Your task to perform on an android device: find snoozed emails in the gmail app Image 0: 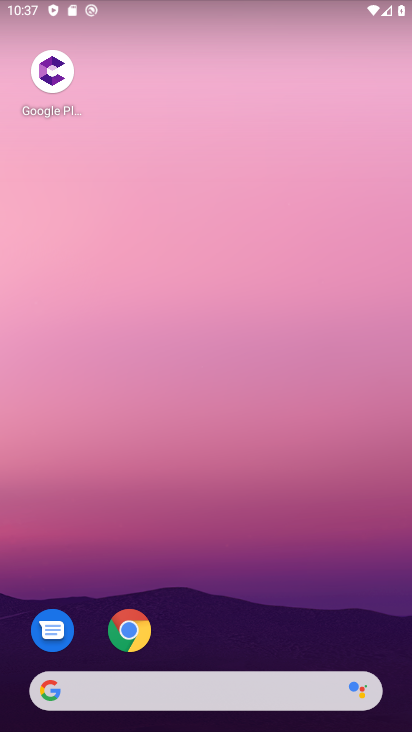
Step 0: drag from (264, 679) to (264, 107)
Your task to perform on an android device: find snoozed emails in the gmail app Image 1: 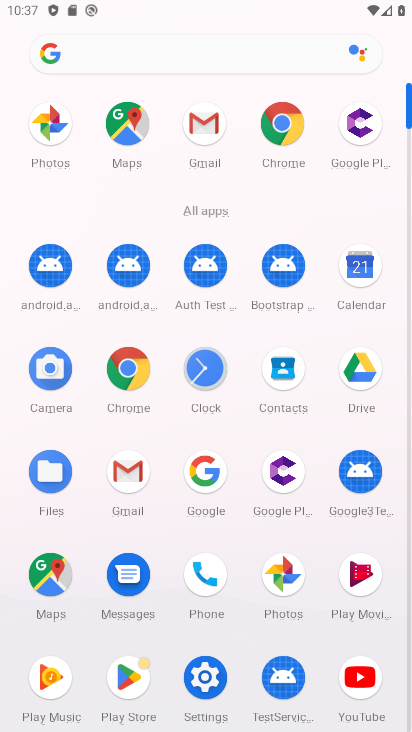
Step 1: click (198, 130)
Your task to perform on an android device: find snoozed emails in the gmail app Image 2: 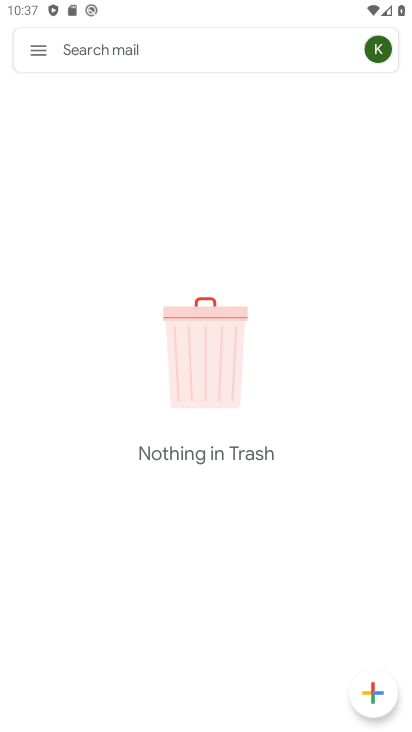
Step 2: click (44, 45)
Your task to perform on an android device: find snoozed emails in the gmail app Image 3: 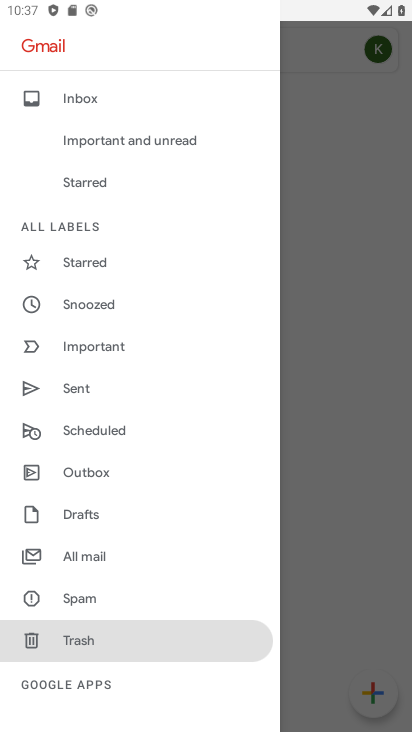
Step 3: click (74, 296)
Your task to perform on an android device: find snoozed emails in the gmail app Image 4: 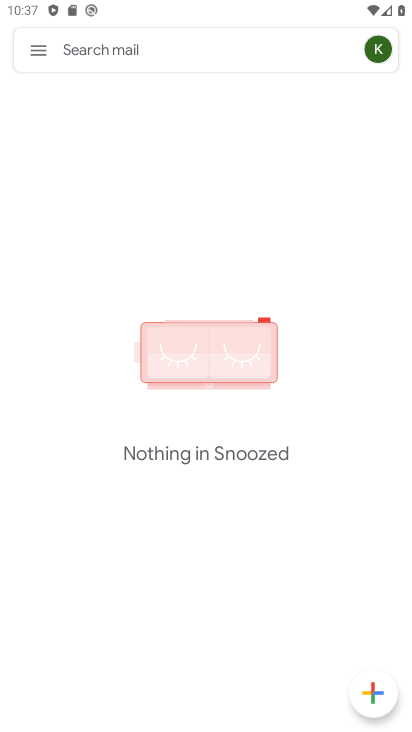
Step 4: task complete